Your task to perform on an android device: Open location settings Image 0: 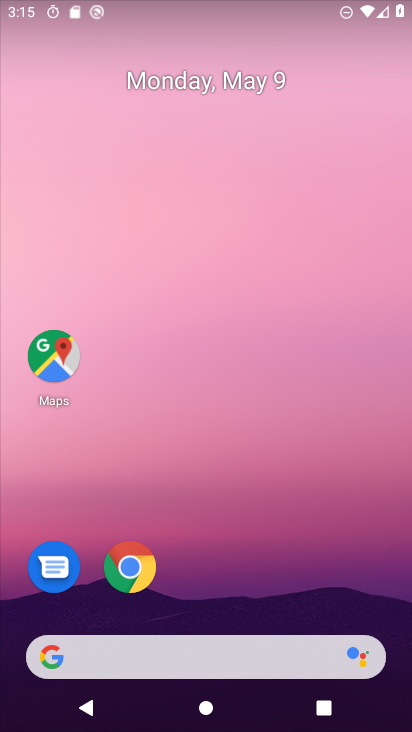
Step 0: drag from (222, 525) to (222, 5)
Your task to perform on an android device: Open location settings Image 1: 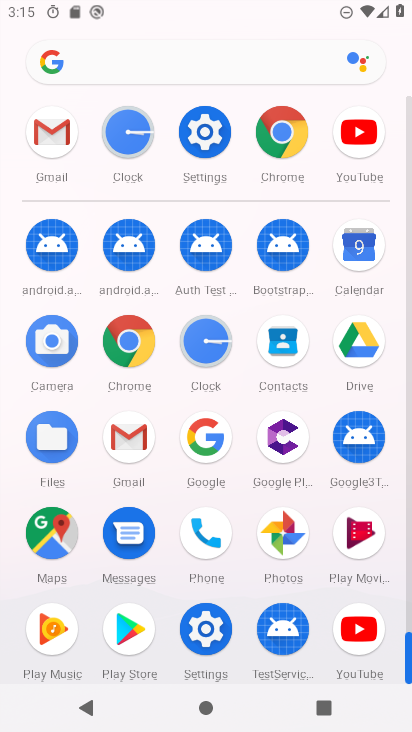
Step 1: click (196, 134)
Your task to perform on an android device: Open location settings Image 2: 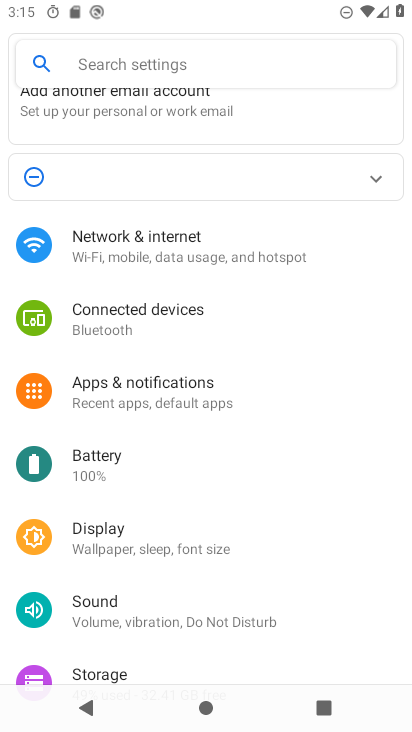
Step 2: drag from (238, 597) to (228, 321)
Your task to perform on an android device: Open location settings Image 3: 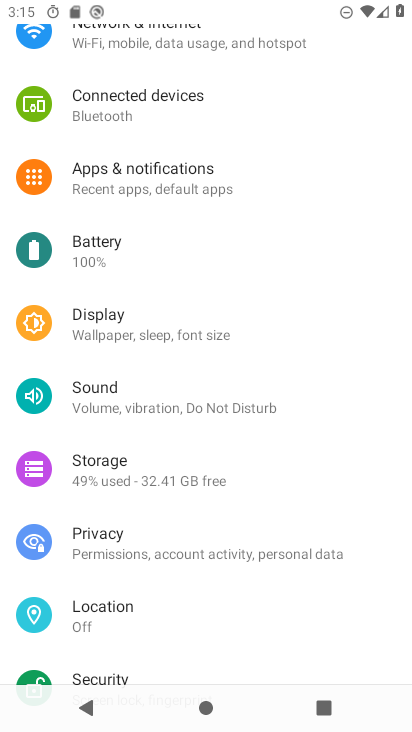
Step 3: click (102, 618)
Your task to perform on an android device: Open location settings Image 4: 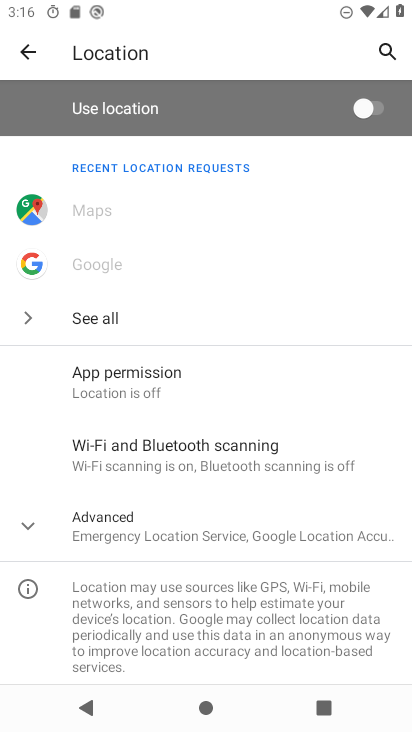
Step 4: task complete